Your task to perform on an android device: View the shopping cart on bestbuy.com. Search for alienware area 51 on bestbuy.com, select the first entry, and add it to the cart. Image 0: 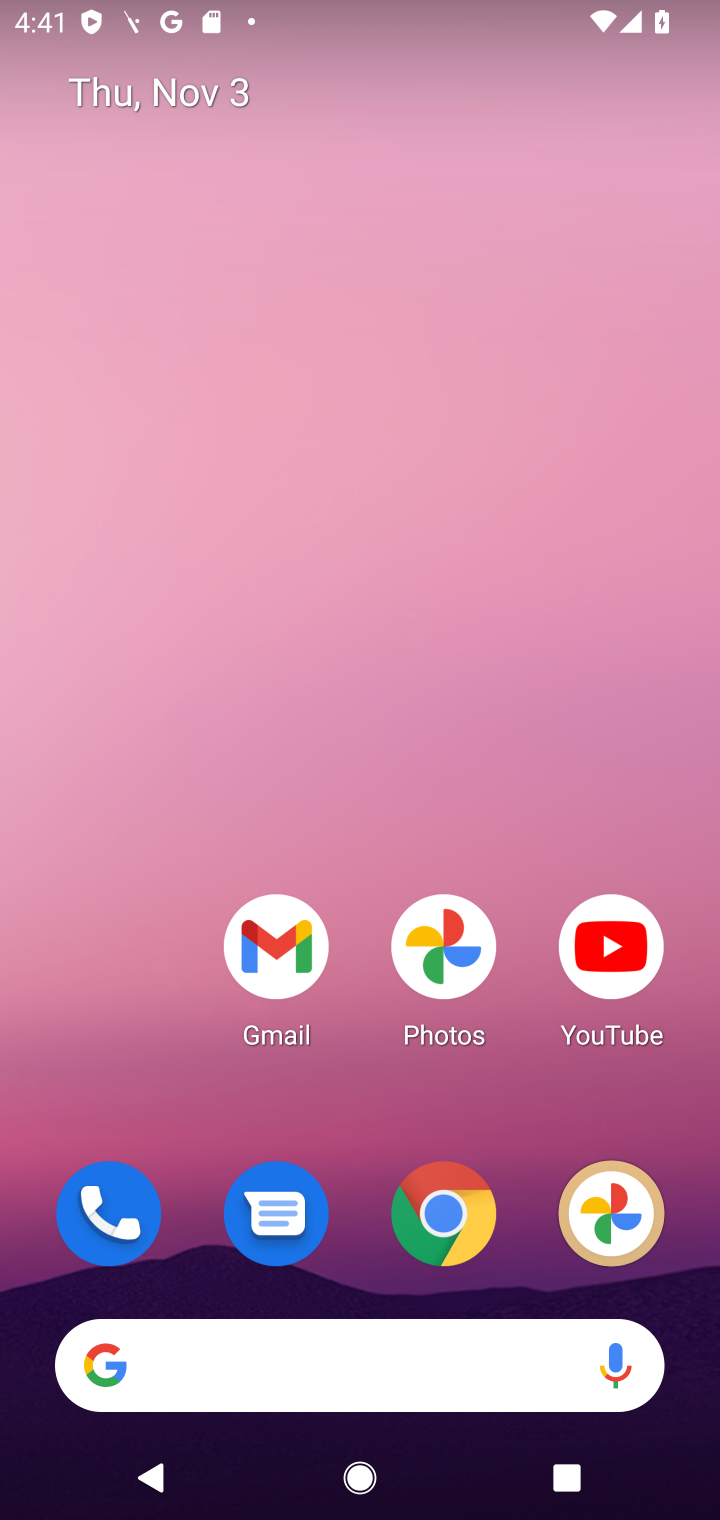
Step 0: click (449, 1217)
Your task to perform on an android device: View the shopping cart on bestbuy.com. Search for alienware area 51 on bestbuy.com, select the first entry, and add it to the cart. Image 1: 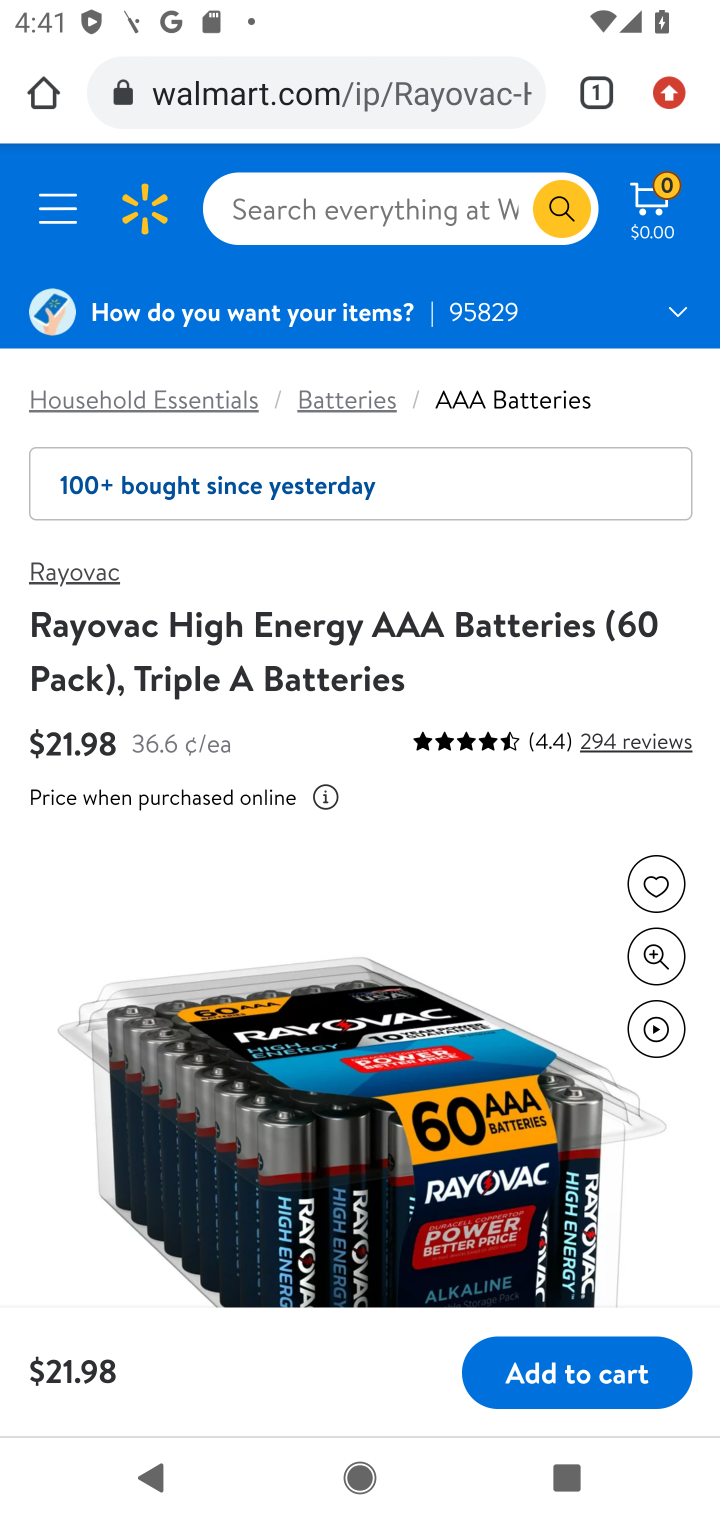
Step 1: click (299, 79)
Your task to perform on an android device: View the shopping cart on bestbuy.com. Search for alienware area 51 on bestbuy.com, select the first entry, and add it to the cart. Image 2: 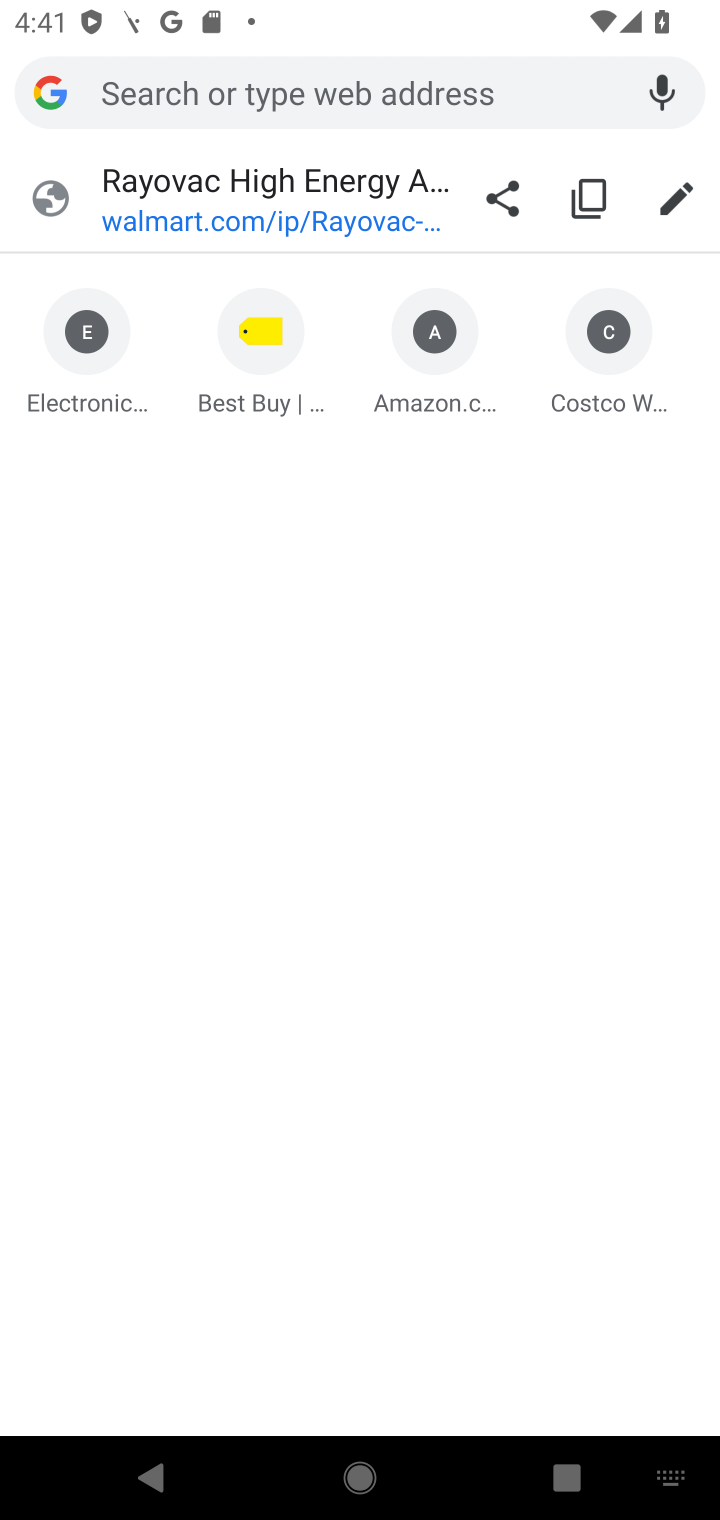
Step 2: type "bestbuy.com"
Your task to perform on an android device: View the shopping cart on bestbuy.com. Search for alienware area 51 on bestbuy.com, select the first entry, and add it to the cart. Image 3: 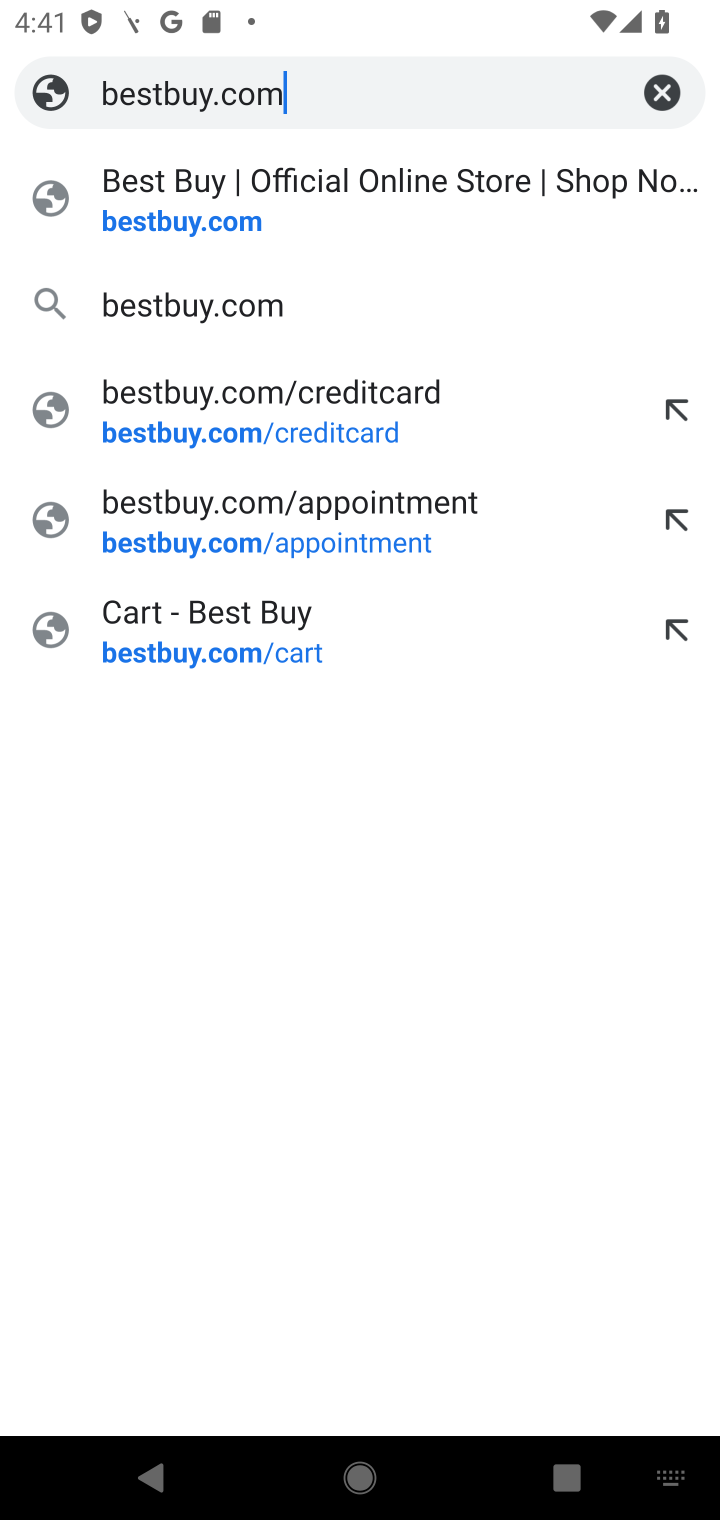
Step 3: click (185, 216)
Your task to perform on an android device: View the shopping cart on bestbuy.com. Search for alienware area 51 on bestbuy.com, select the first entry, and add it to the cart. Image 4: 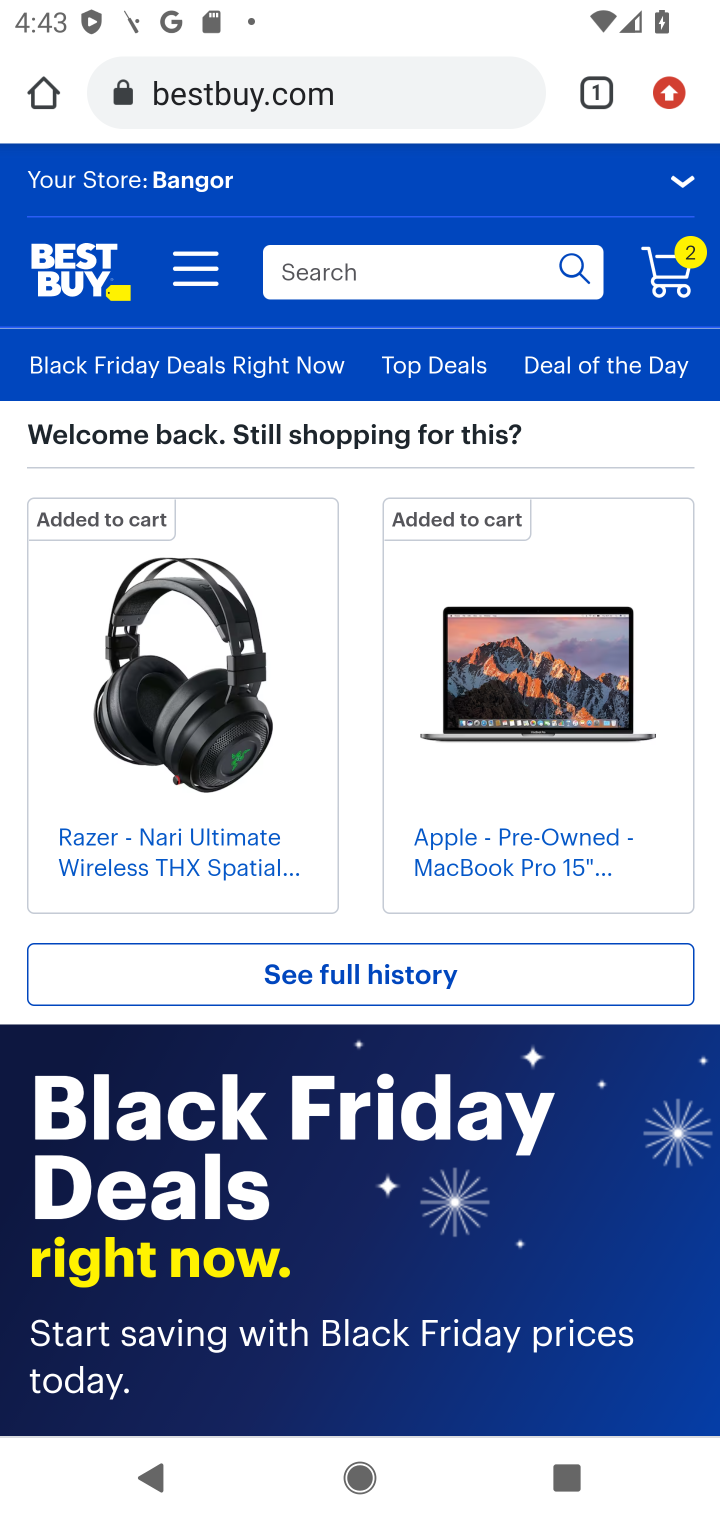
Step 4: click (657, 281)
Your task to perform on an android device: View the shopping cart on bestbuy.com. Search for alienware area 51 on bestbuy.com, select the first entry, and add it to the cart. Image 5: 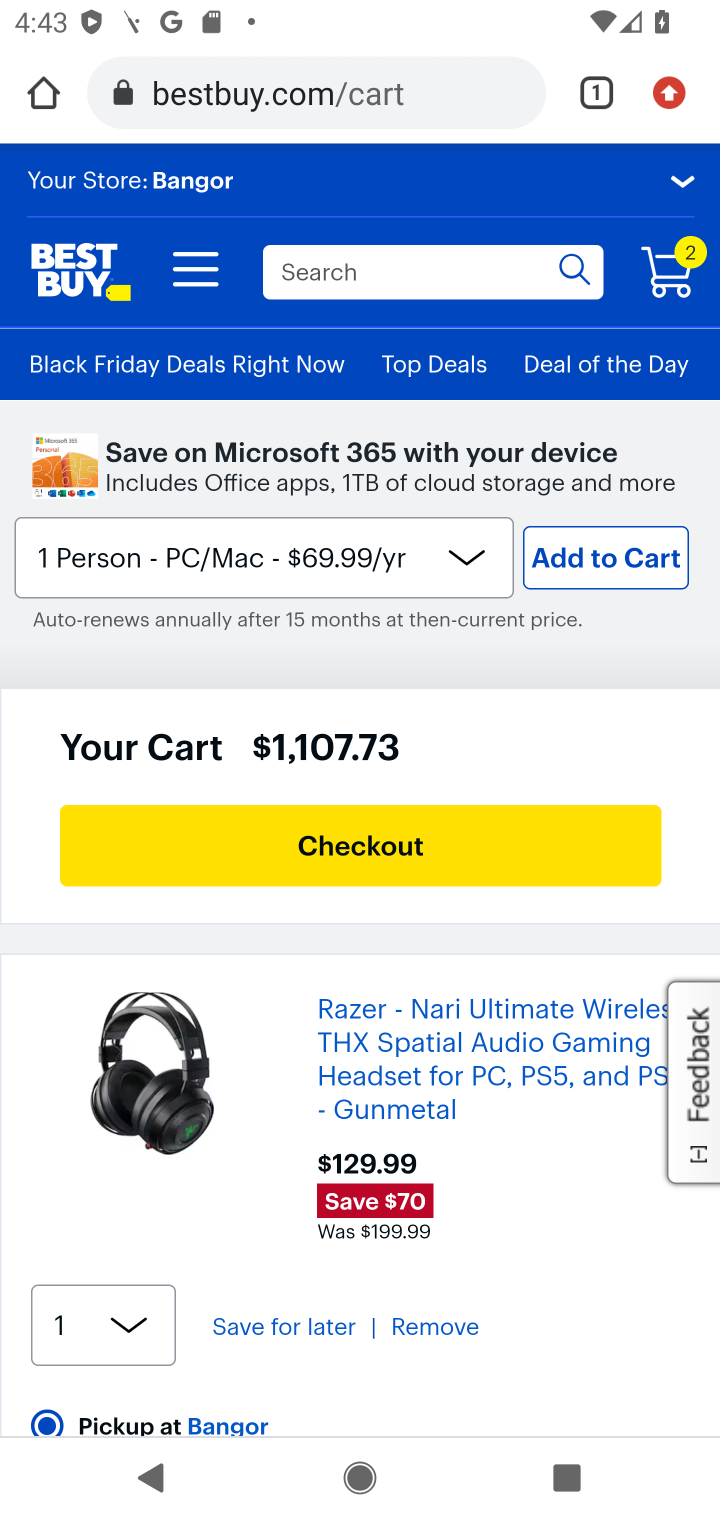
Step 5: click (385, 277)
Your task to perform on an android device: View the shopping cart on bestbuy.com. Search for alienware area 51 on bestbuy.com, select the first entry, and add it to the cart. Image 6: 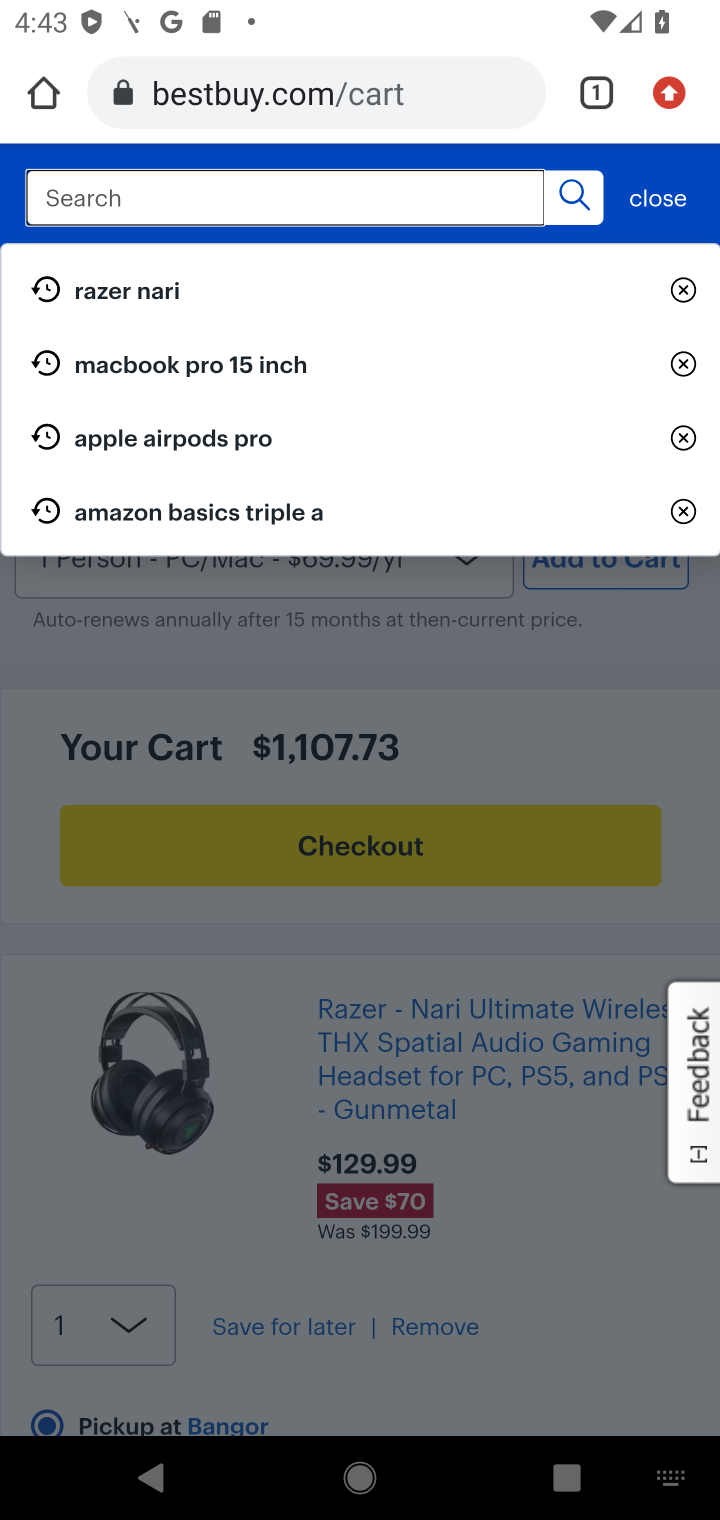
Step 6: type "alienware area 51"
Your task to perform on an android device: View the shopping cart on bestbuy.com. Search for alienware area 51 on bestbuy.com, select the first entry, and add it to the cart. Image 7: 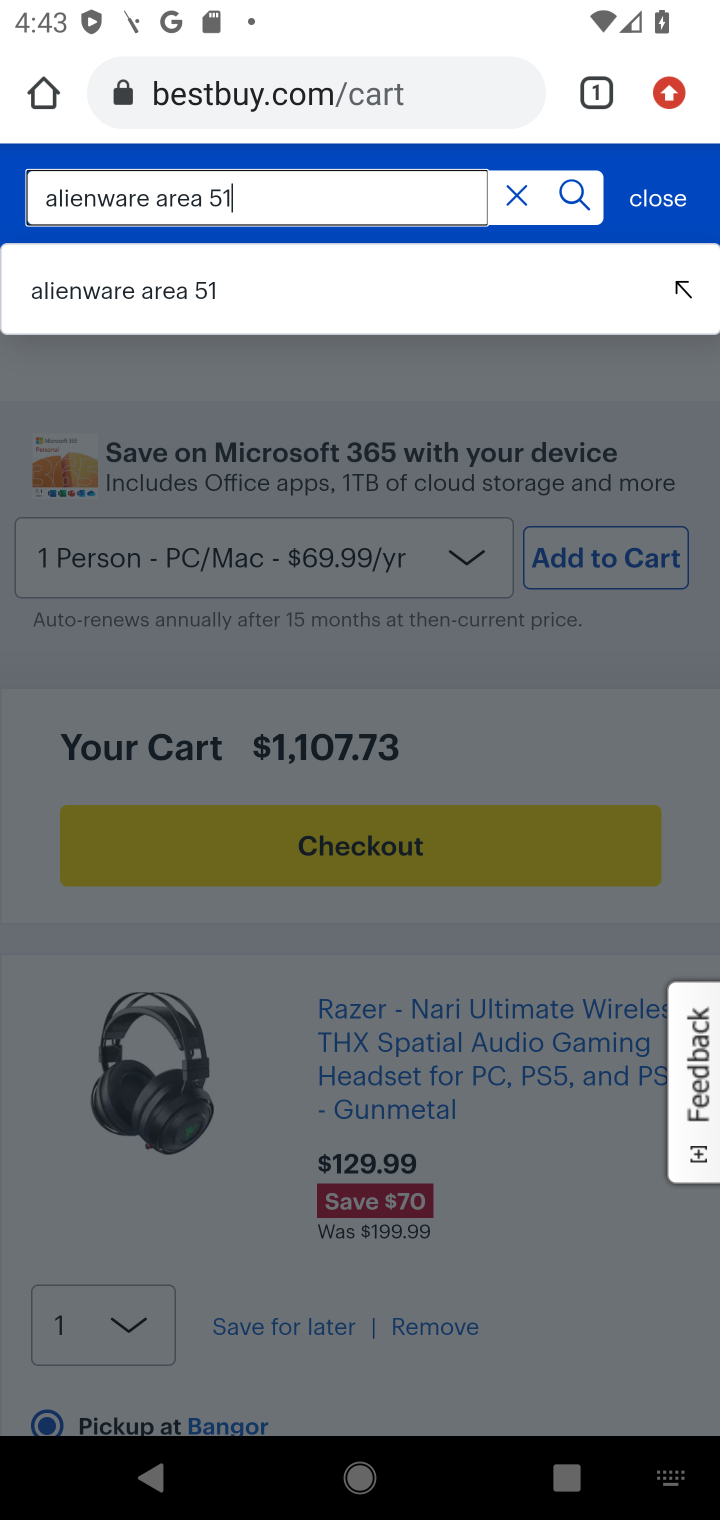
Step 7: click (145, 292)
Your task to perform on an android device: View the shopping cart on bestbuy.com. Search for alienware area 51 on bestbuy.com, select the first entry, and add it to the cart. Image 8: 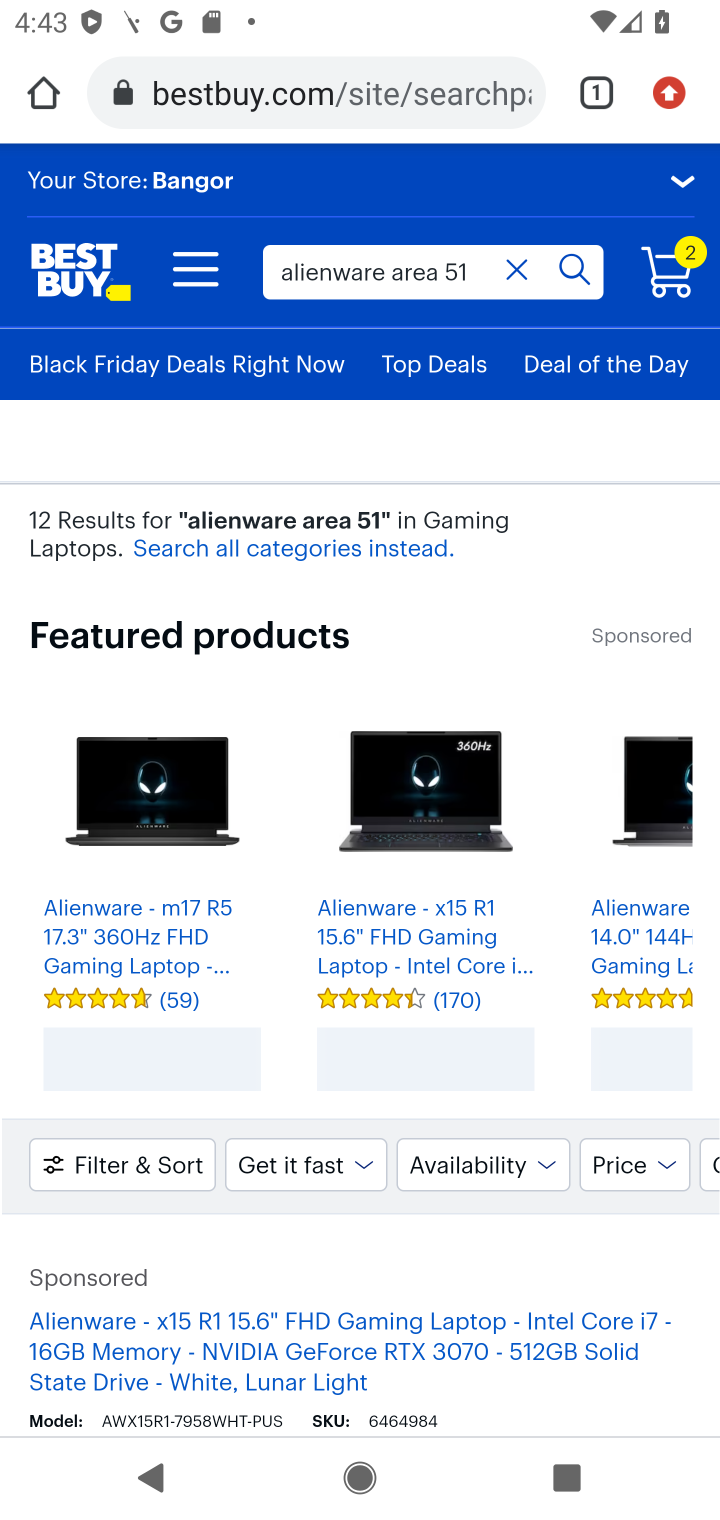
Step 8: drag from (276, 984) to (286, 466)
Your task to perform on an android device: View the shopping cart on bestbuy.com. Search for alienware area 51 on bestbuy.com, select the first entry, and add it to the cart. Image 9: 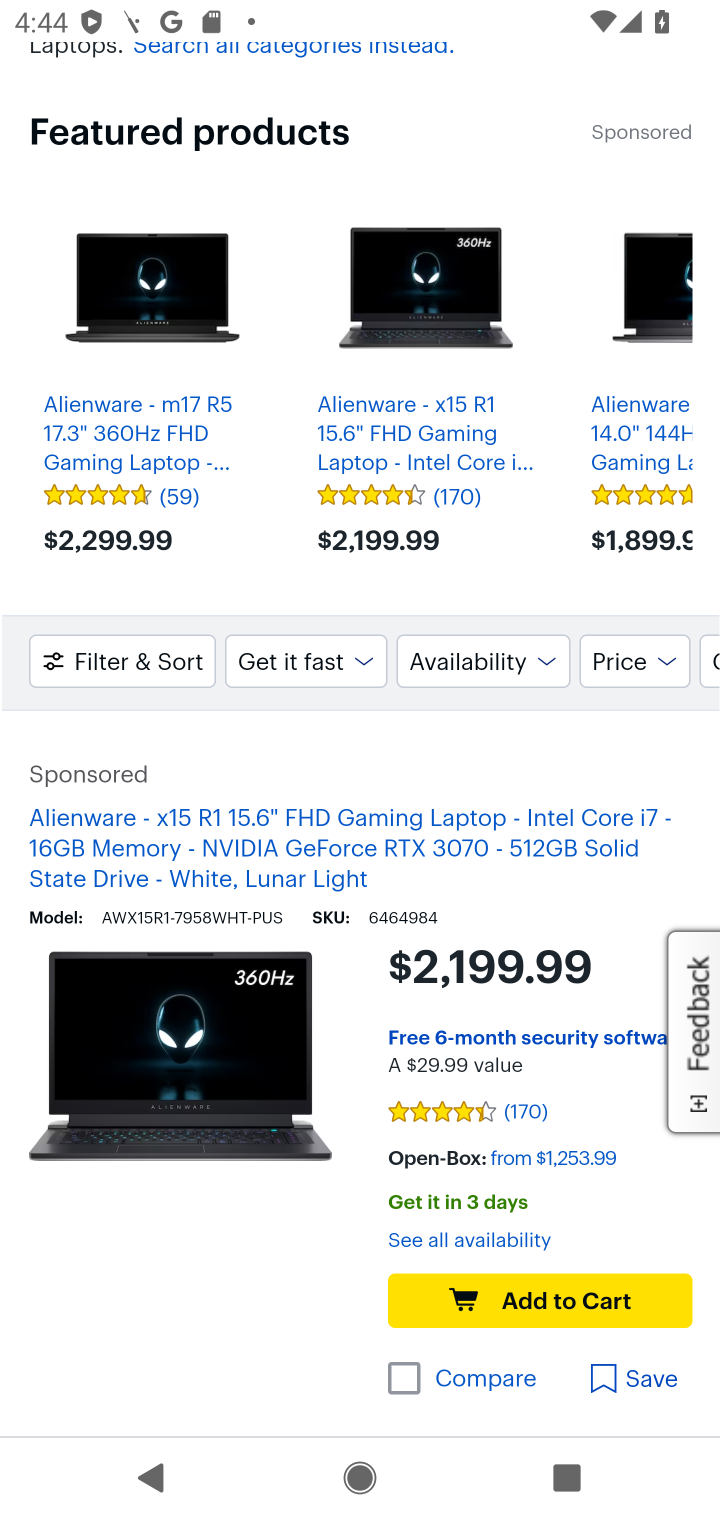
Step 9: click (241, 1135)
Your task to perform on an android device: View the shopping cart on bestbuy.com. Search for alienware area 51 on bestbuy.com, select the first entry, and add it to the cart. Image 10: 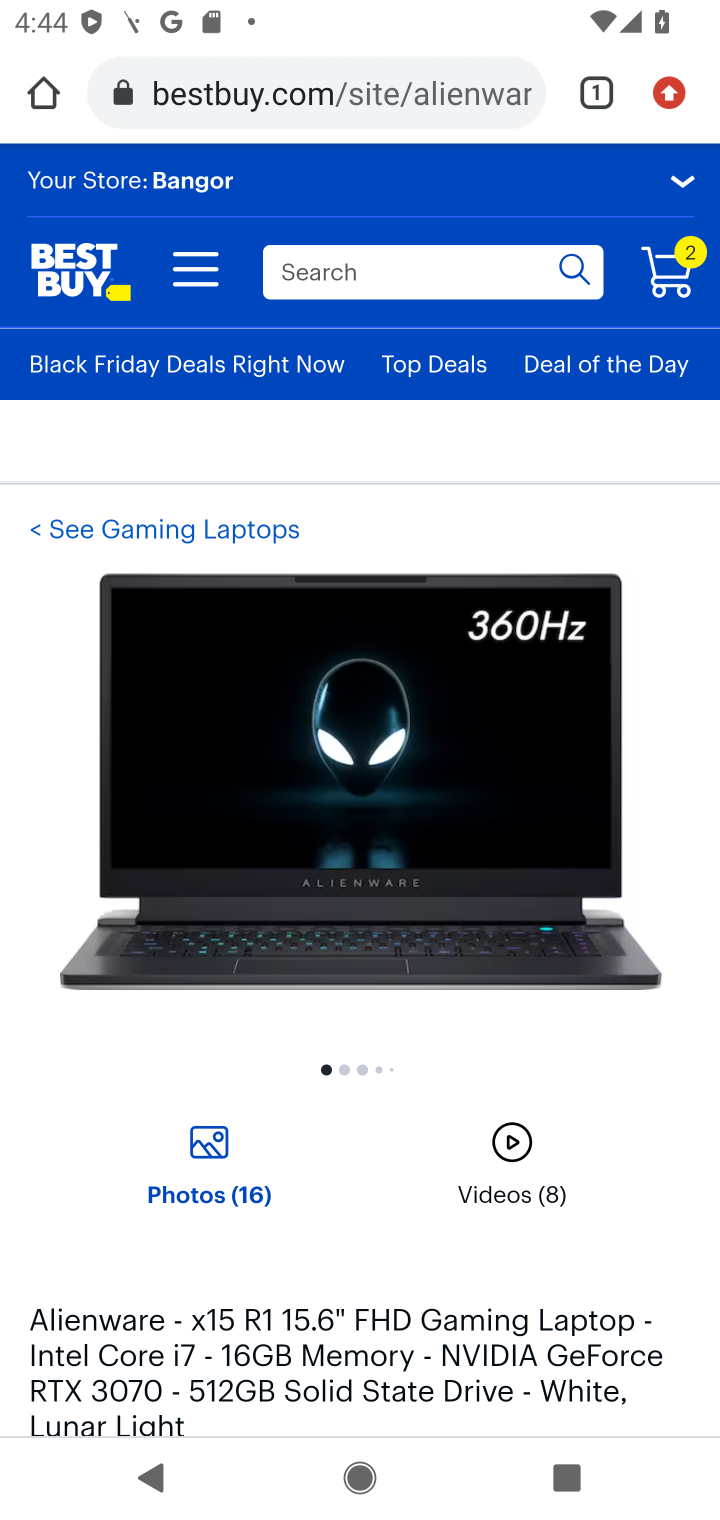
Step 10: drag from (343, 1154) to (343, 404)
Your task to perform on an android device: View the shopping cart on bestbuy.com. Search for alienware area 51 on bestbuy.com, select the first entry, and add it to the cart. Image 11: 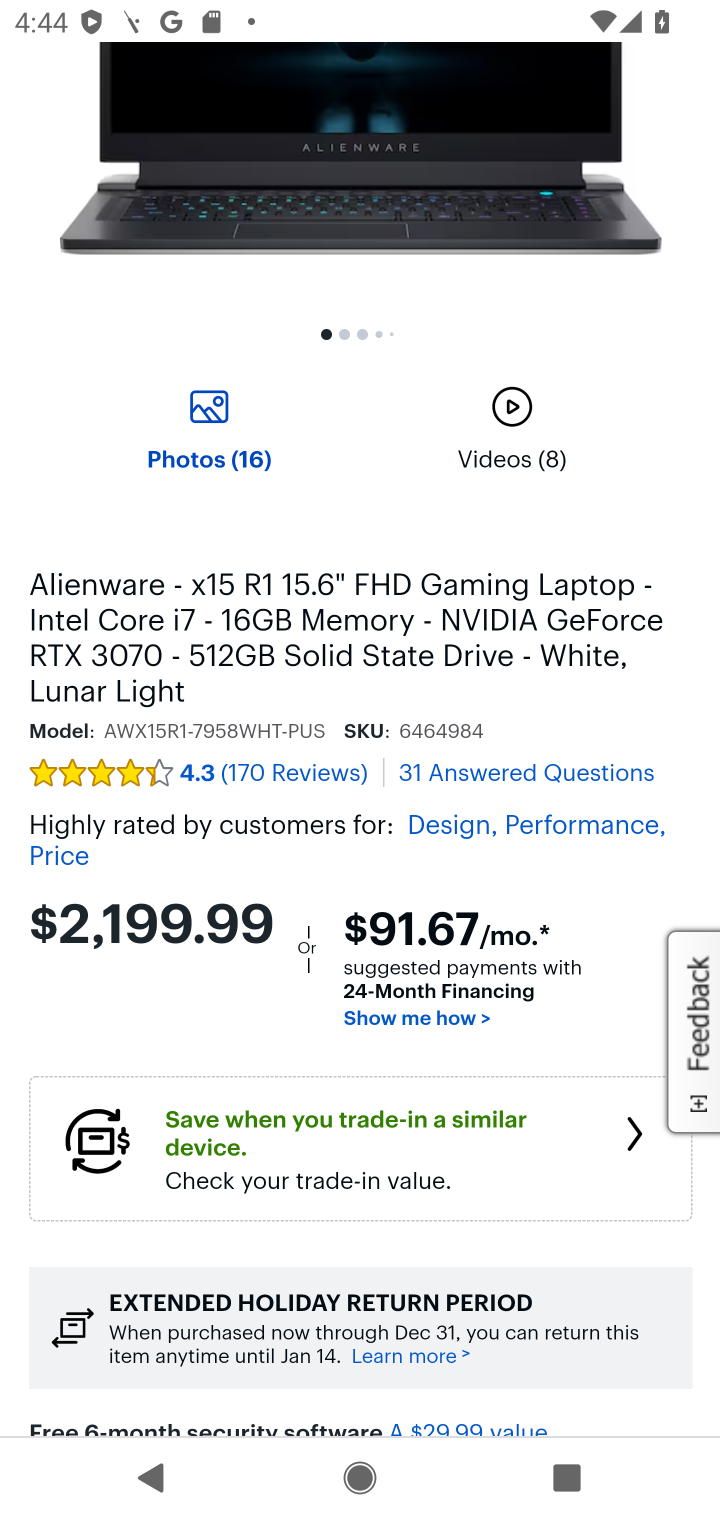
Step 11: drag from (289, 728) to (282, 377)
Your task to perform on an android device: View the shopping cart on bestbuy.com. Search for alienware area 51 on bestbuy.com, select the first entry, and add it to the cart. Image 12: 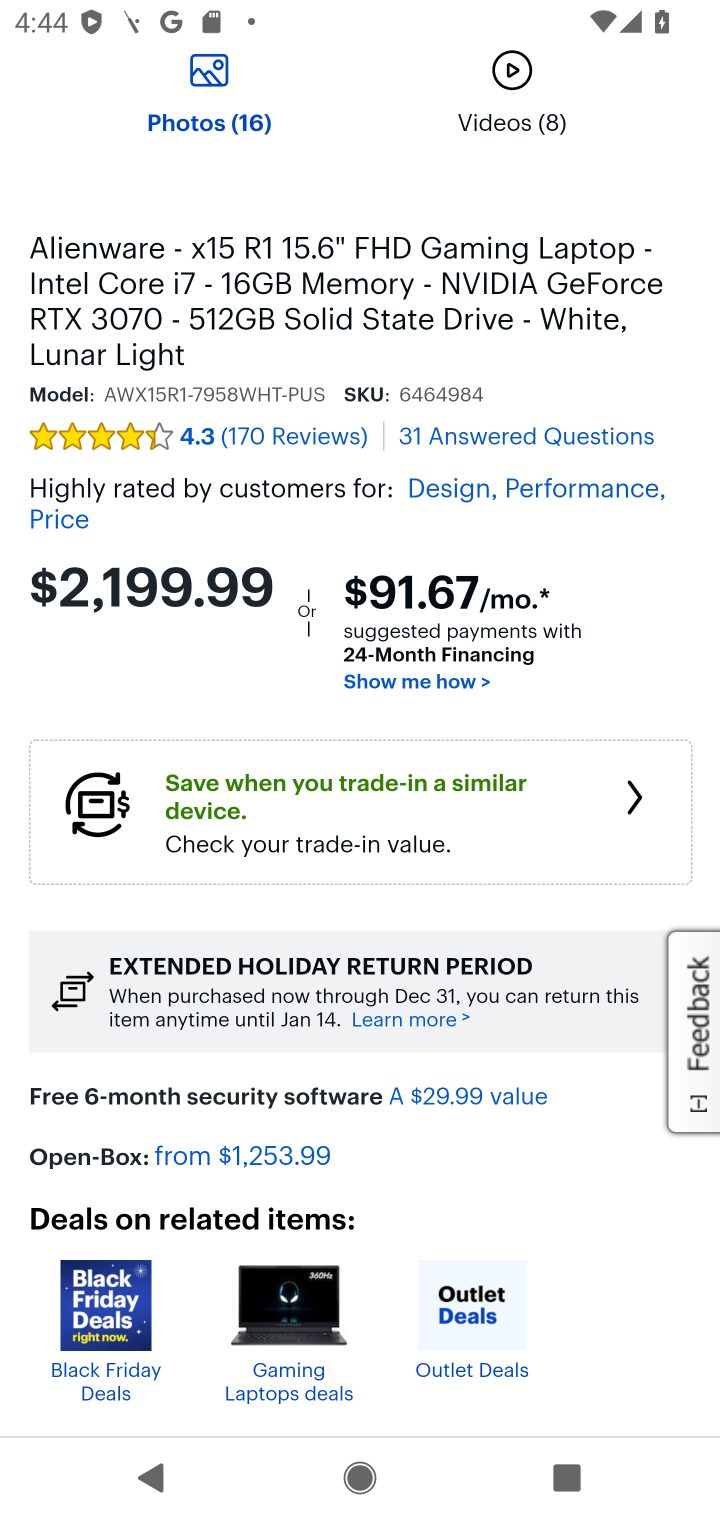
Step 12: drag from (292, 982) to (321, 392)
Your task to perform on an android device: View the shopping cart on bestbuy.com. Search for alienware area 51 on bestbuy.com, select the first entry, and add it to the cart. Image 13: 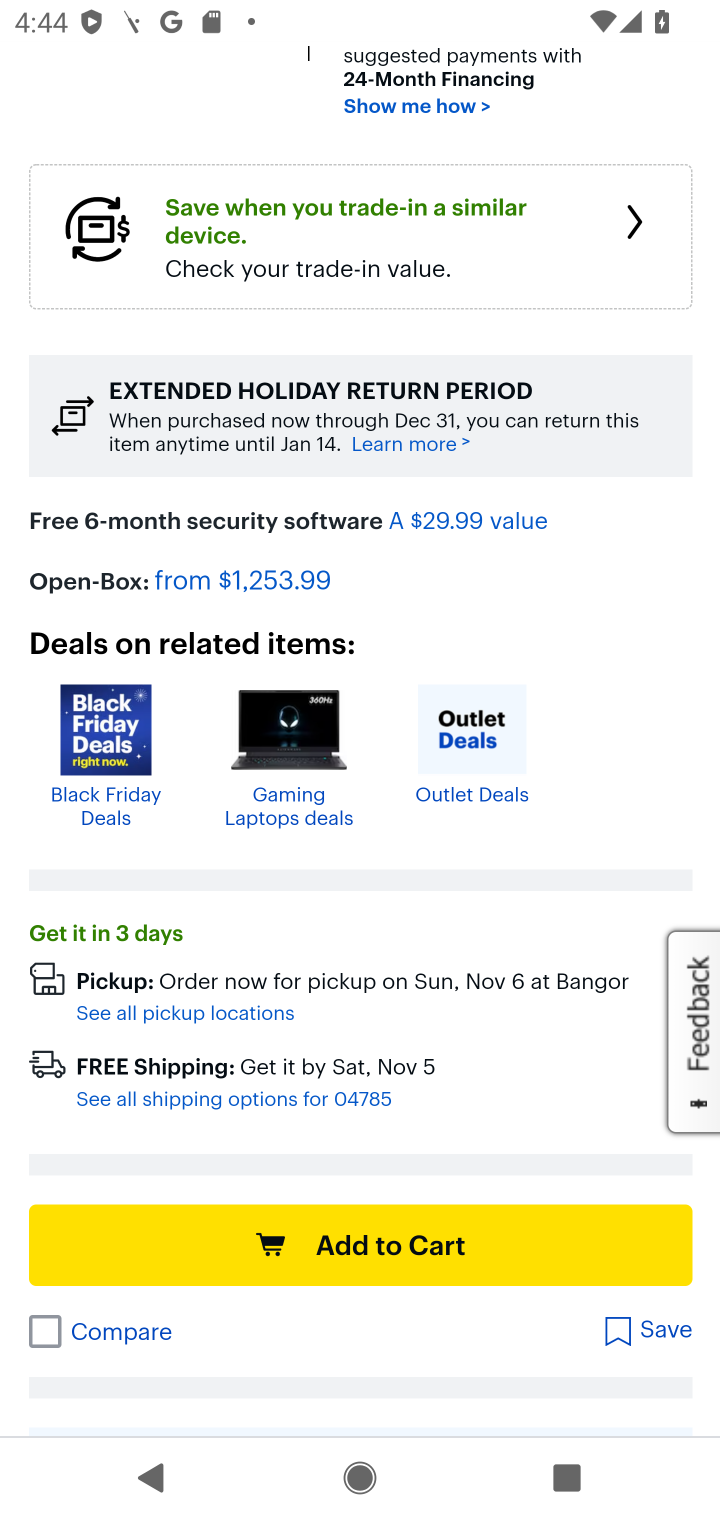
Step 13: click (331, 1244)
Your task to perform on an android device: View the shopping cart on bestbuy.com. Search for alienware area 51 on bestbuy.com, select the first entry, and add it to the cart. Image 14: 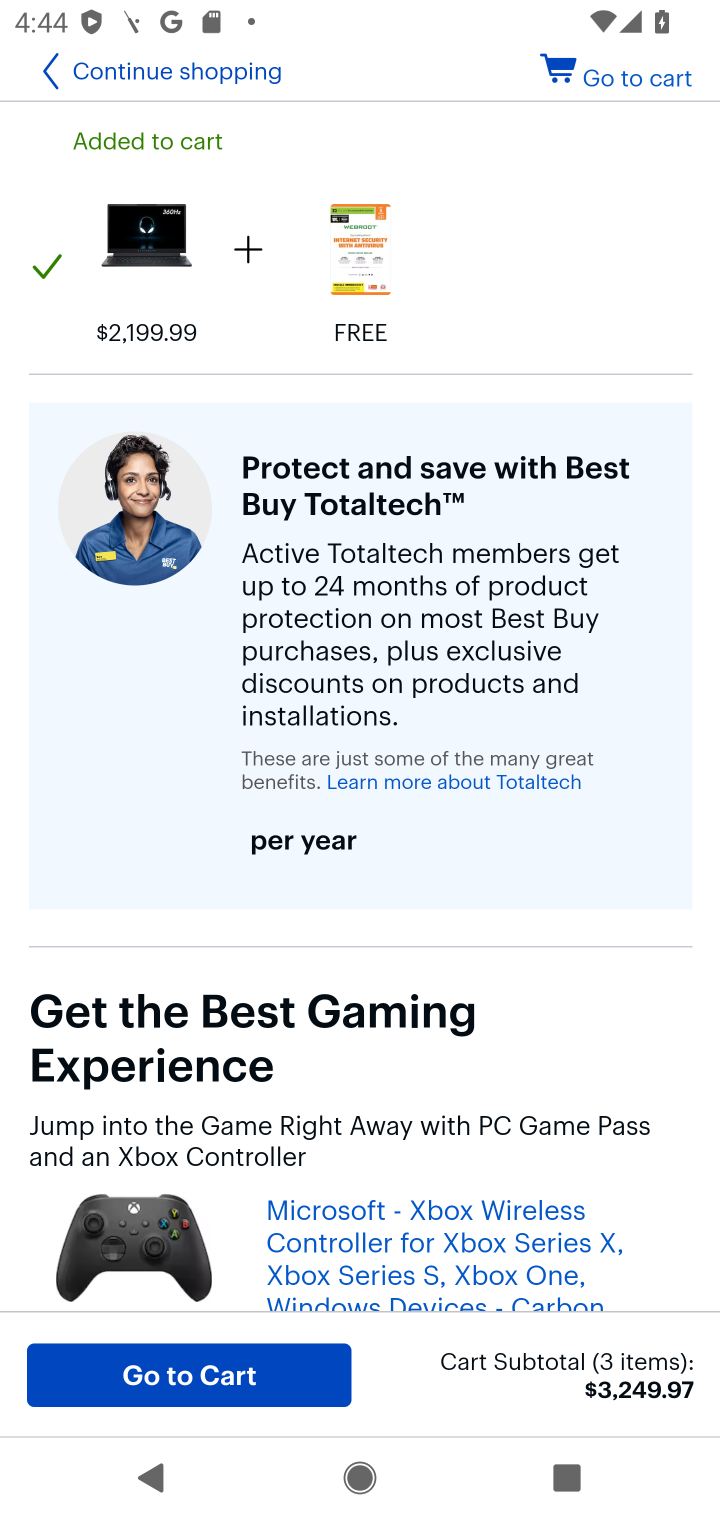
Step 14: task complete